Your task to perform on an android device: See recent photos Image 0: 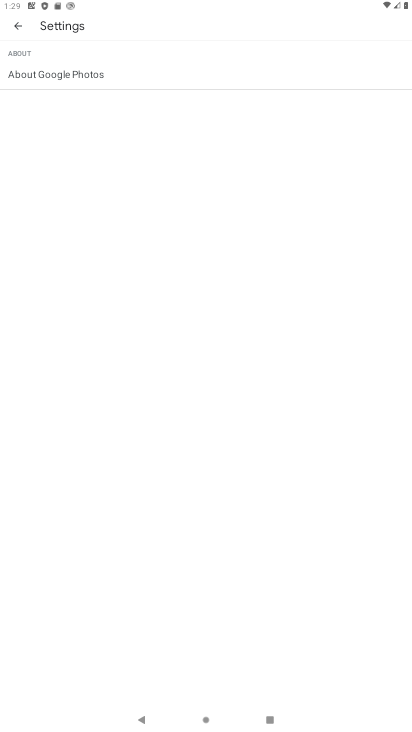
Step 0: press home button
Your task to perform on an android device: See recent photos Image 1: 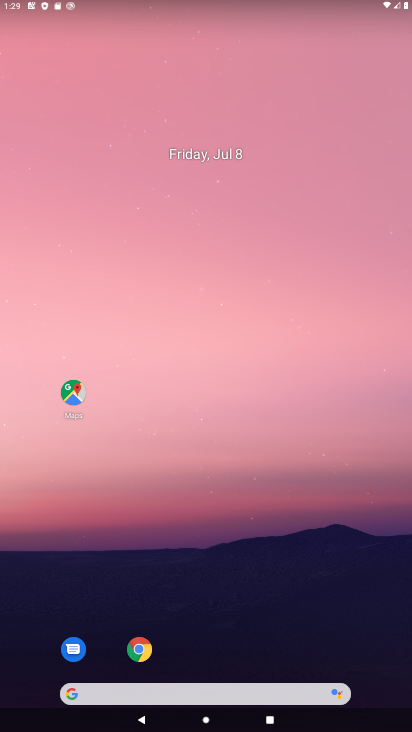
Step 1: click (233, 27)
Your task to perform on an android device: See recent photos Image 2: 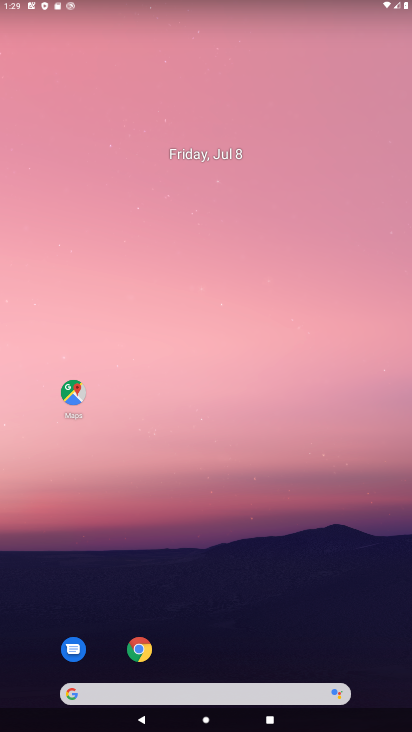
Step 2: drag from (202, 410) to (411, 239)
Your task to perform on an android device: See recent photos Image 3: 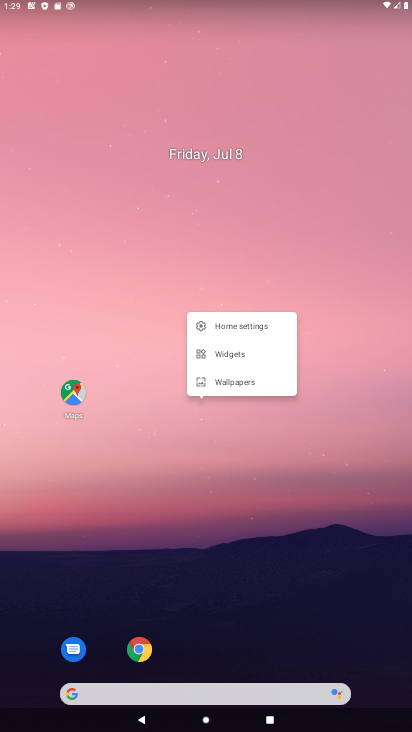
Step 3: drag from (24, 703) to (410, 354)
Your task to perform on an android device: See recent photos Image 4: 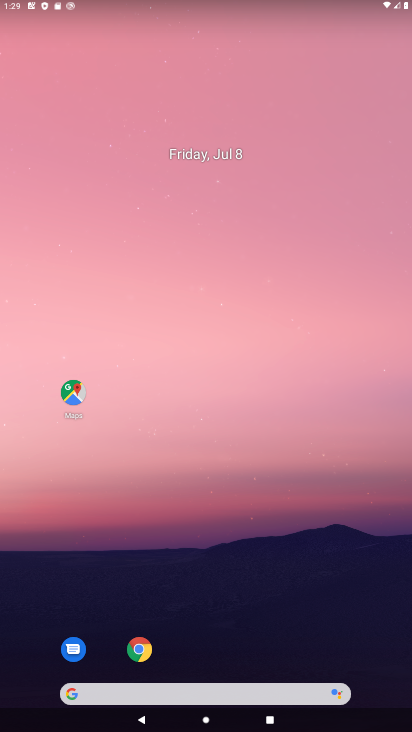
Step 4: drag from (26, 700) to (158, 248)
Your task to perform on an android device: See recent photos Image 5: 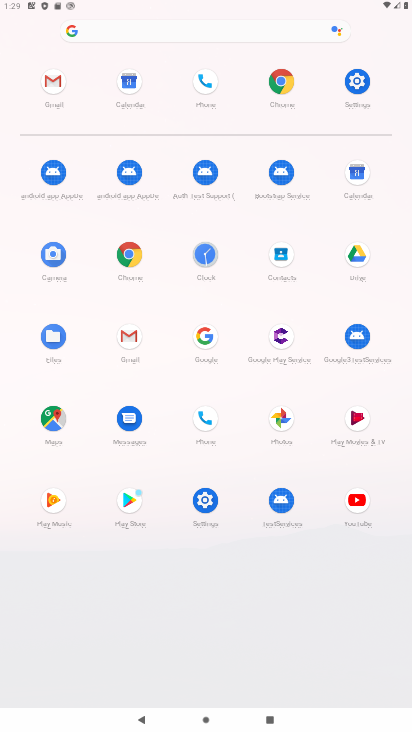
Step 5: click (294, 421)
Your task to perform on an android device: See recent photos Image 6: 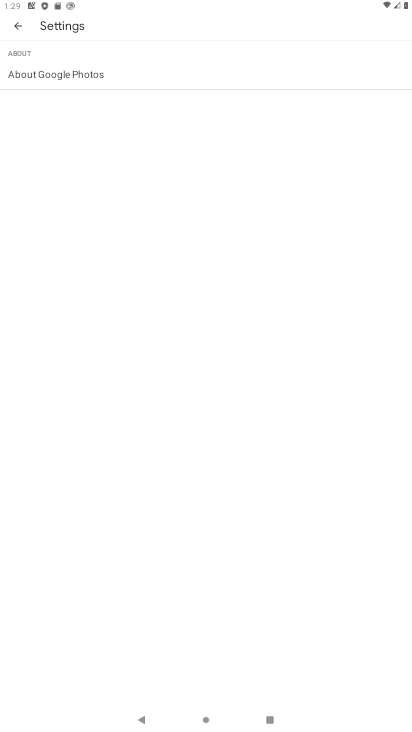
Step 6: click (15, 21)
Your task to perform on an android device: See recent photos Image 7: 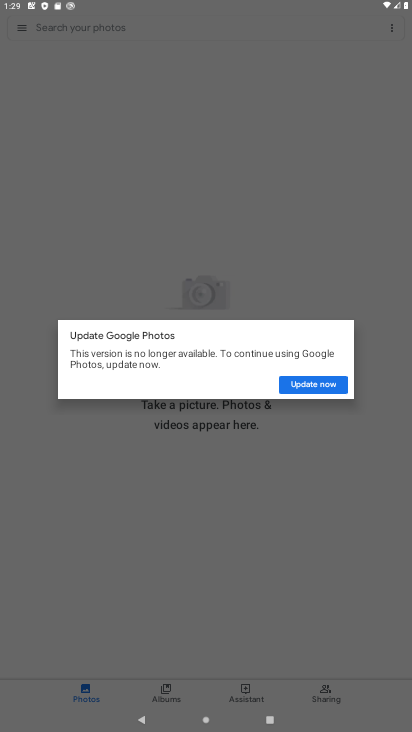
Step 7: click (301, 384)
Your task to perform on an android device: See recent photos Image 8: 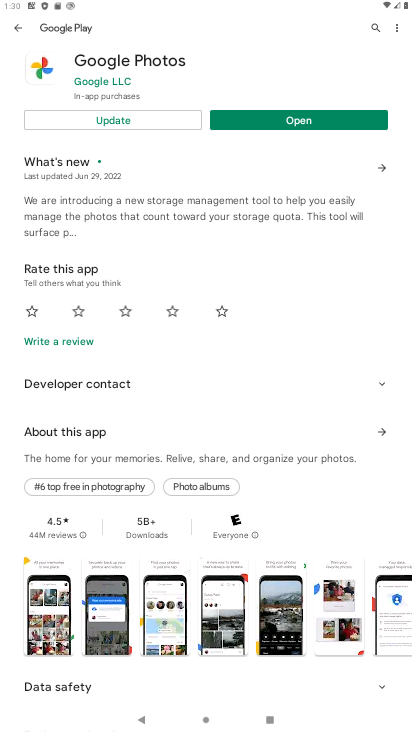
Step 8: click (315, 122)
Your task to perform on an android device: See recent photos Image 9: 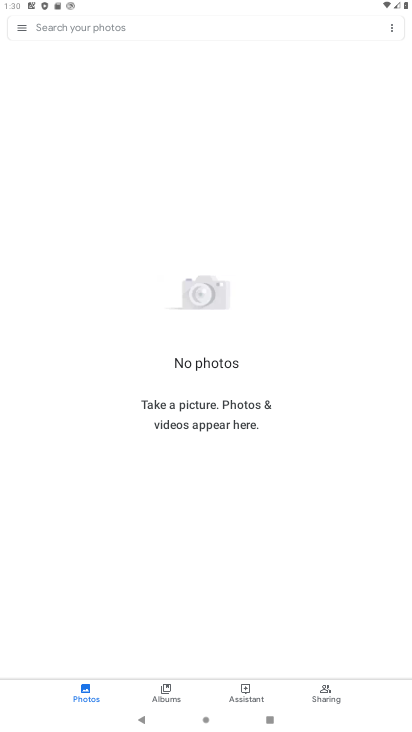
Step 9: task complete